Your task to perform on an android device: Go to Reddit.com Image 0: 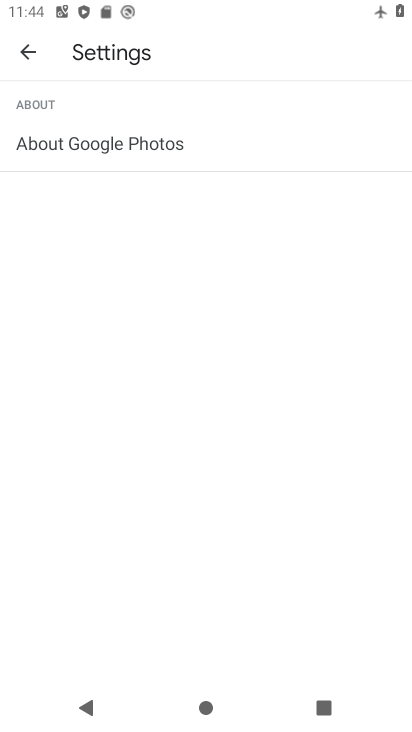
Step 0: press home button
Your task to perform on an android device: Go to Reddit.com Image 1: 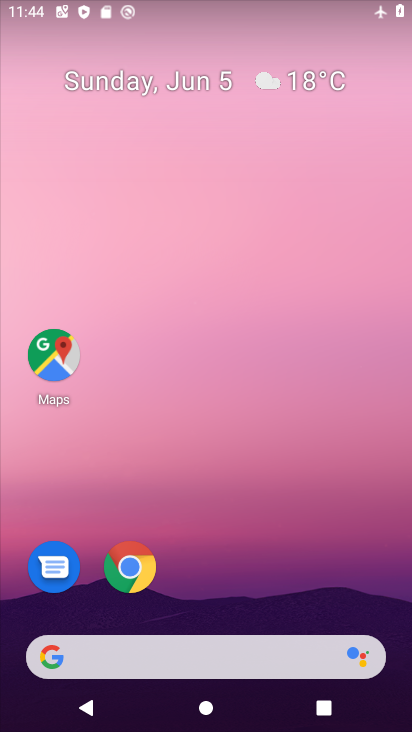
Step 1: click (273, 664)
Your task to perform on an android device: Go to Reddit.com Image 2: 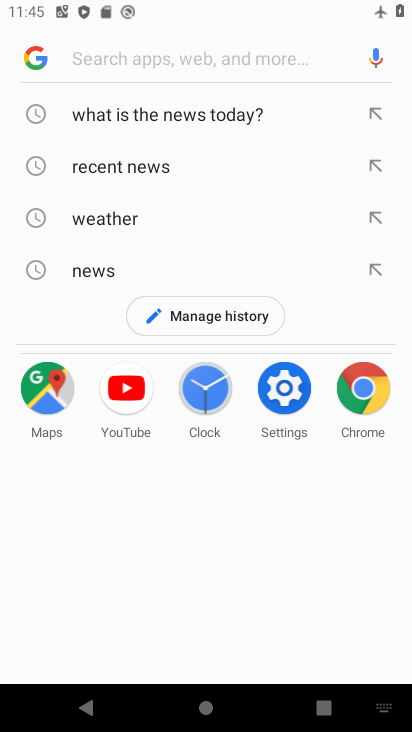
Step 2: type "reddit.com"
Your task to perform on an android device: Go to Reddit.com Image 3: 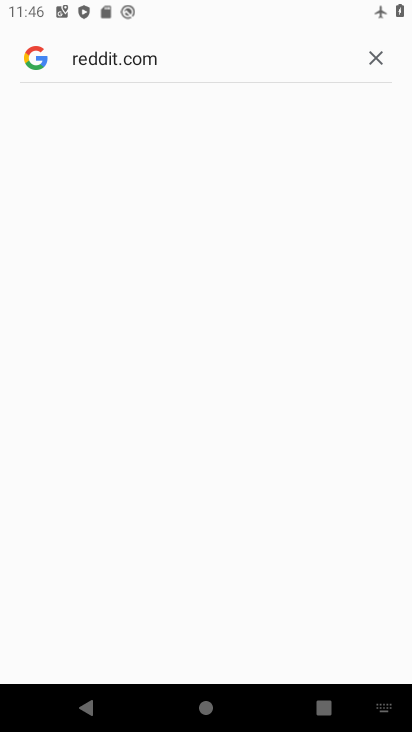
Step 3: task complete